Your task to perform on an android device: Search for a new mascara Image 0: 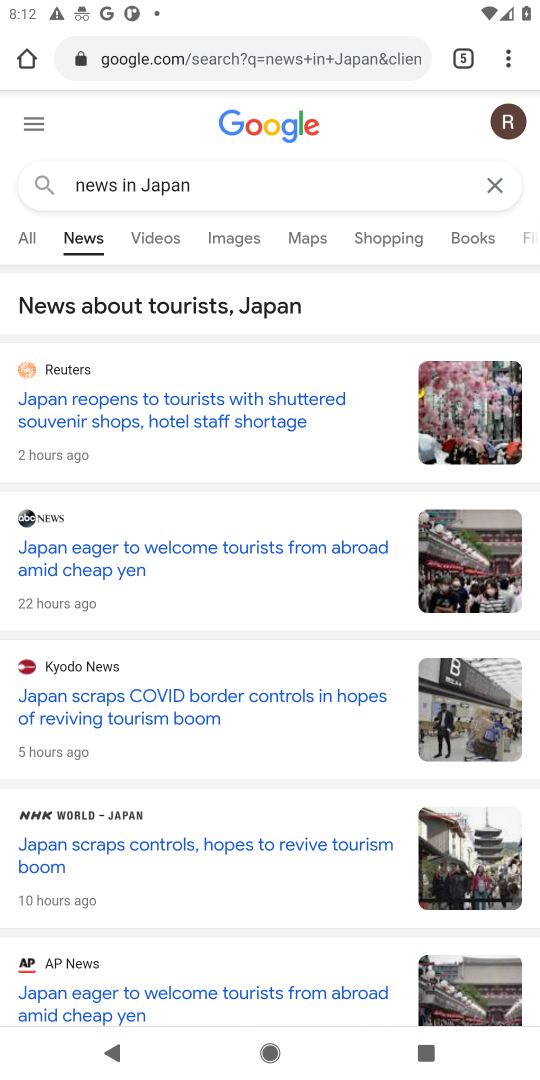
Step 0: press home button
Your task to perform on an android device: Search for a new mascara Image 1: 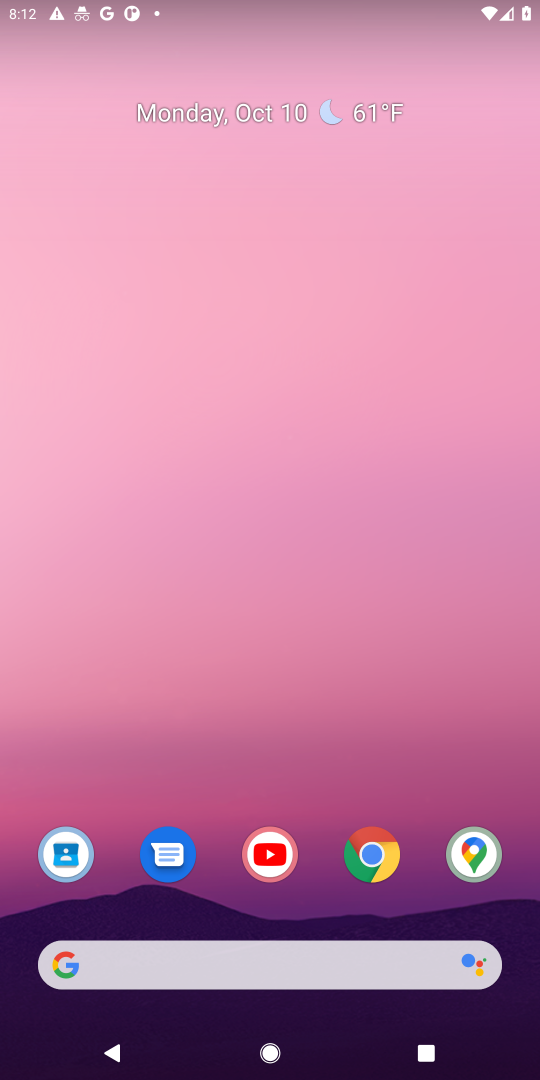
Step 1: click (374, 858)
Your task to perform on an android device: Search for a new mascara Image 2: 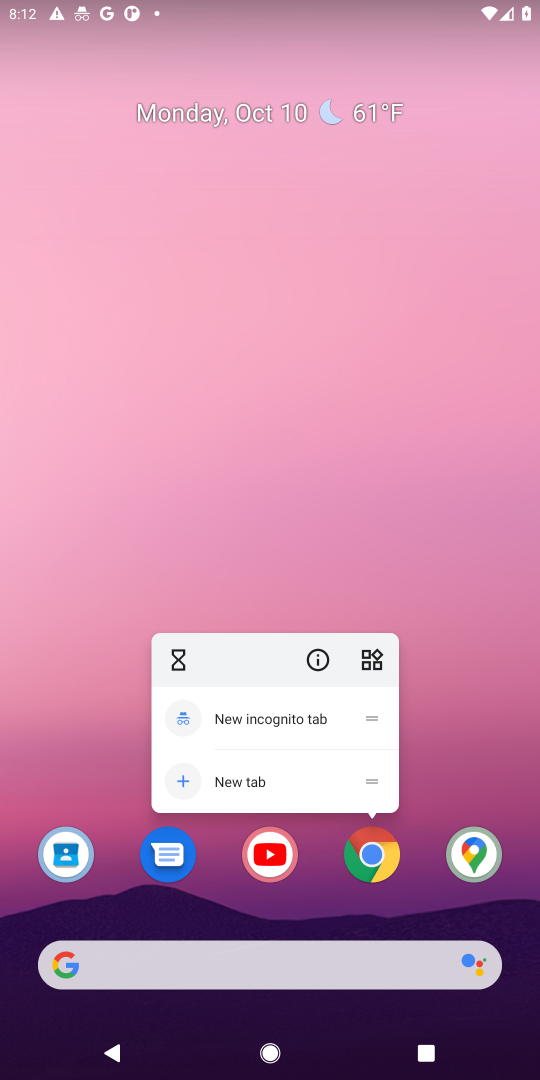
Step 2: click (374, 858)
Your task to perform on an android device: Search for a new mascara Image 3: 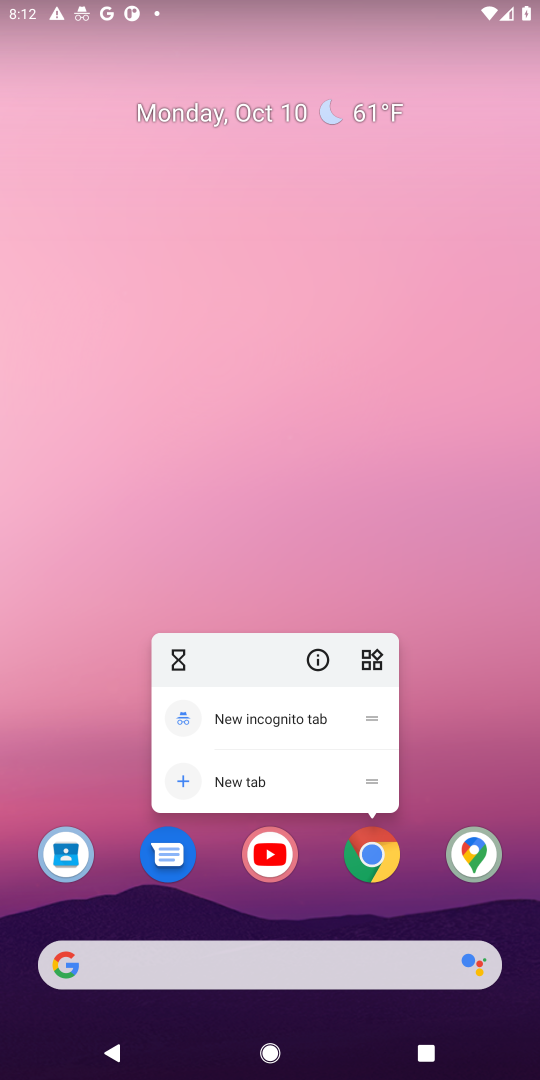
Step 3: click (374, 858)
Your task to perform on an android device: Search for a new mascara Image 4: 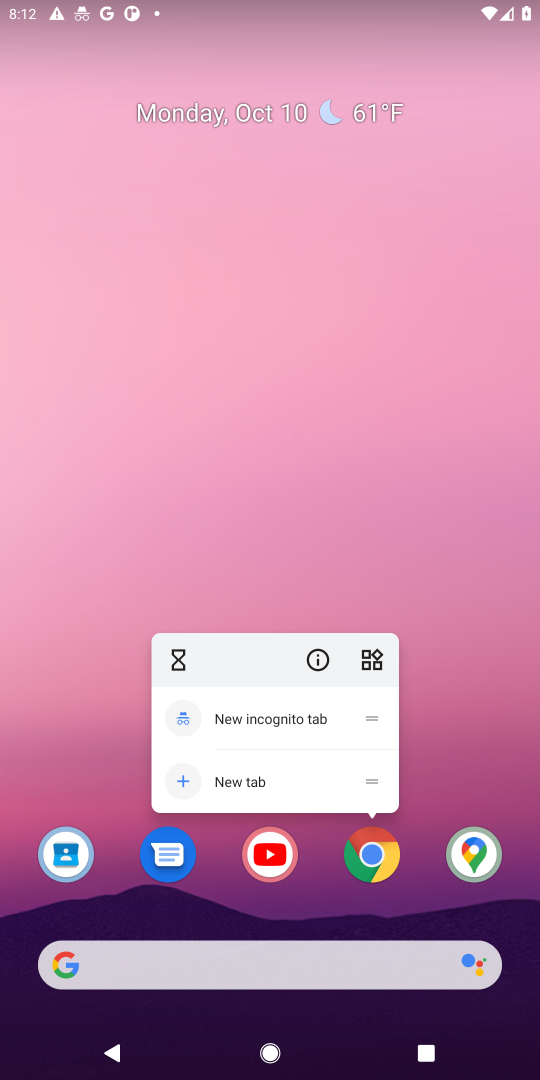
Step 4: click (374, 858)
Your task to perform on an android device: Search for a new mascara Image 5: 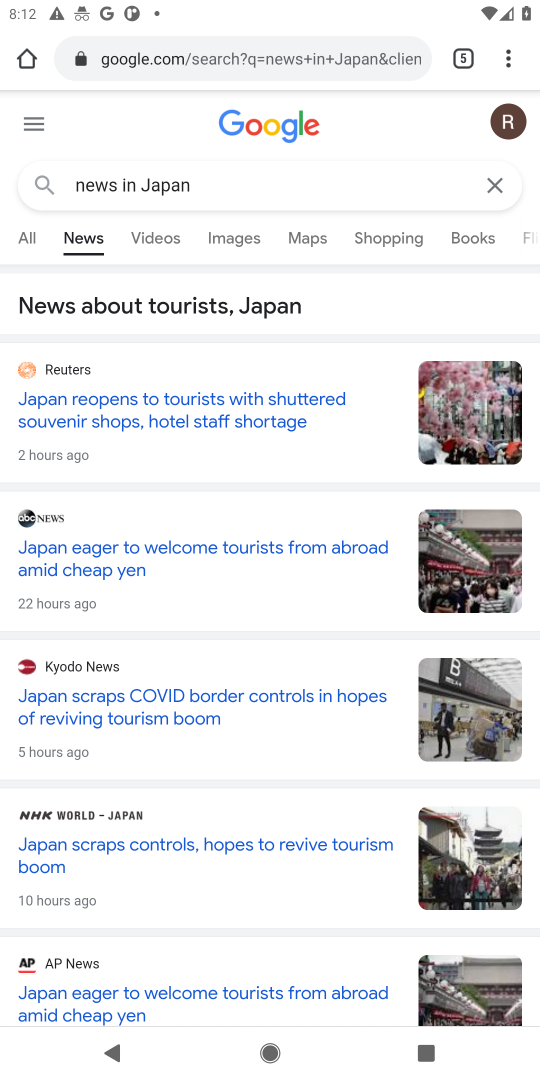
Step 5: click (366, 51)
Your task to perform on an android device: Search for a new mascara Image 6: 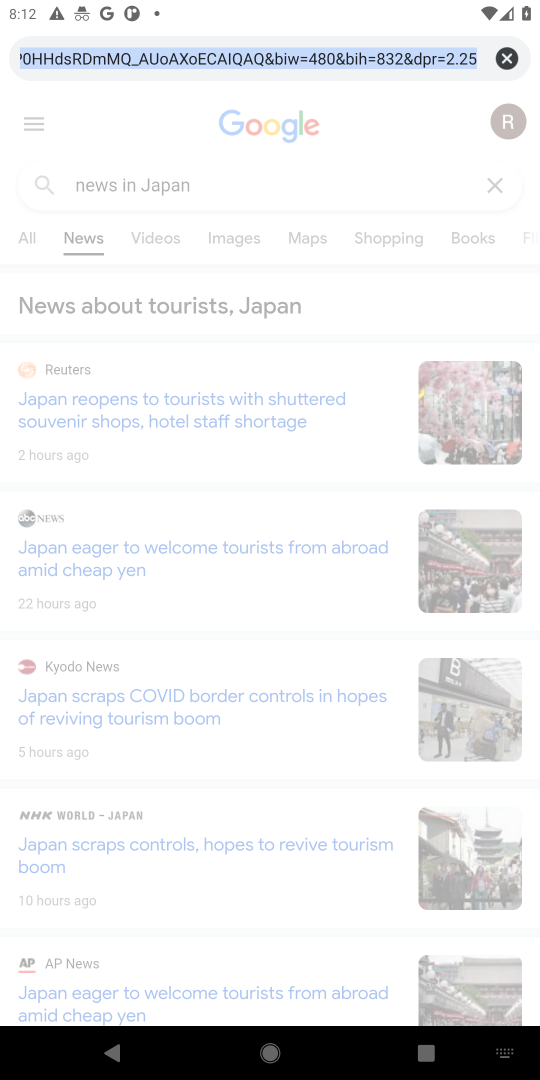
Step 6: click (499, 50)
Your task to perform on an android device: Search for a new mascara Image 7: 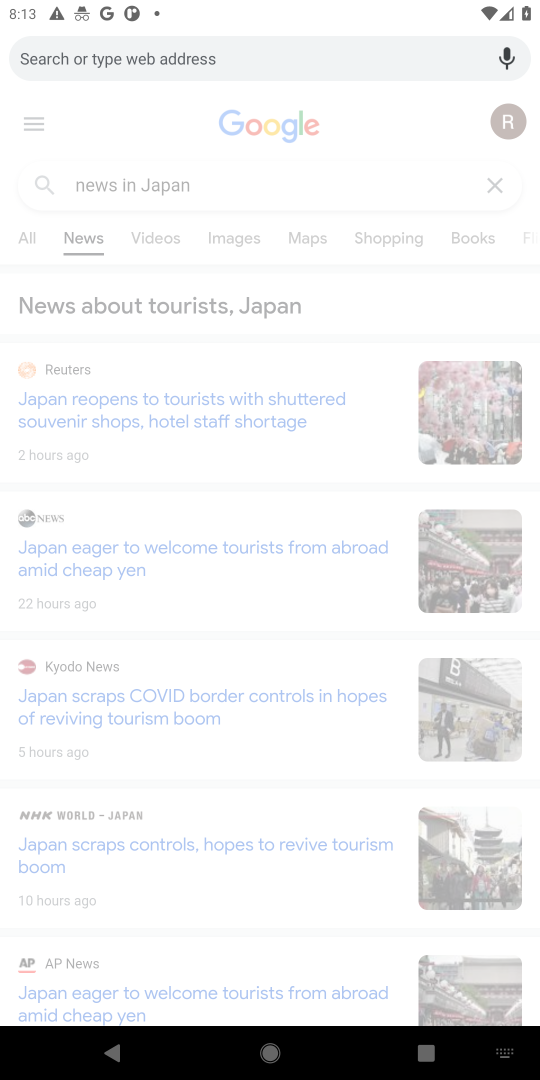
Step 7: type "new mascara"
Your task to perform on an android device: Search for a new mascara Image 8: 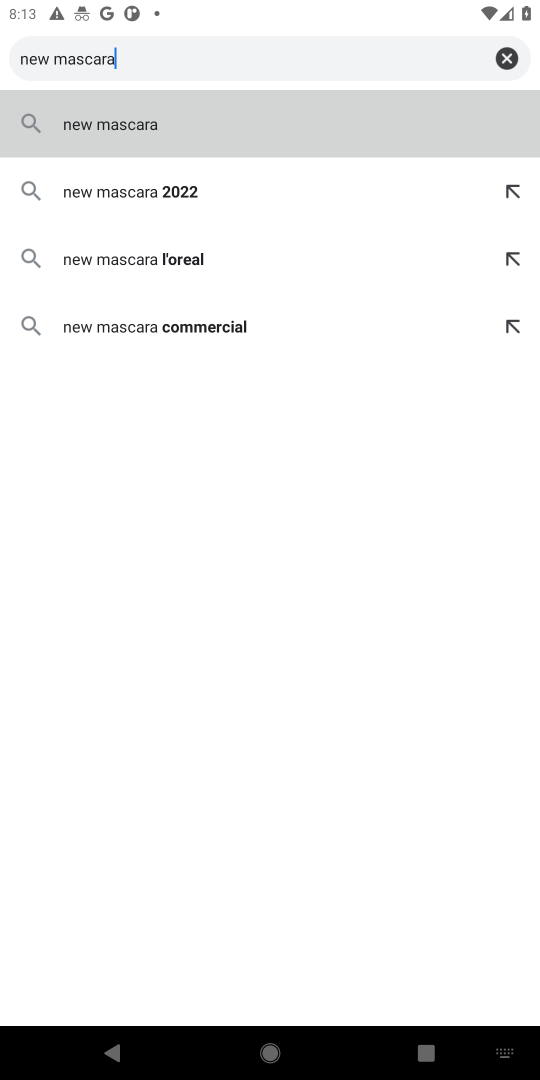
Step 8: click (115, 122)
Your task to perform on an android device: Search for a new mascara Image 9: 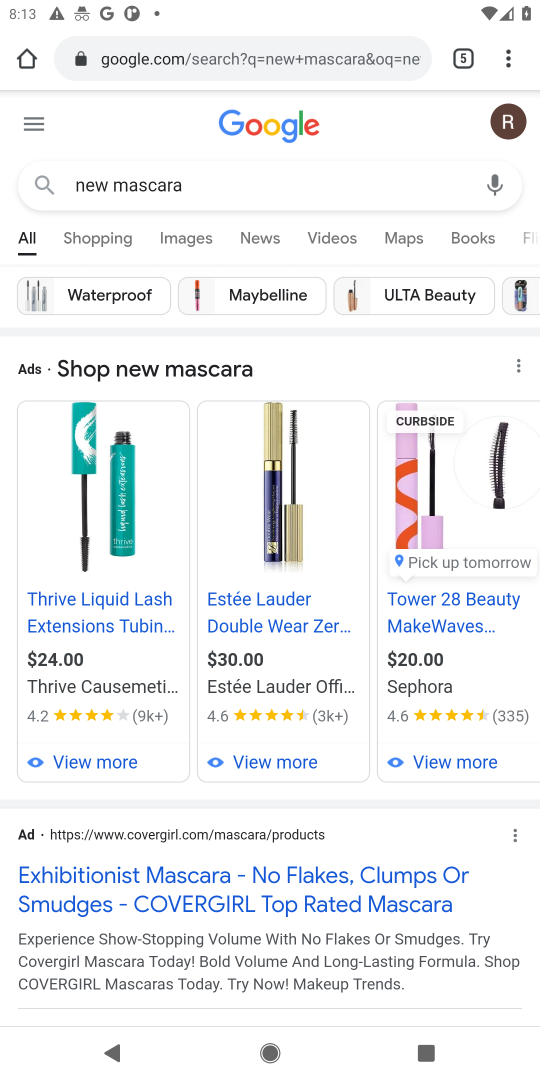
Step 9: drag from (197, 803) to (356, 493)
Your task to perform on an android device: Search for a new mascara Image 10: 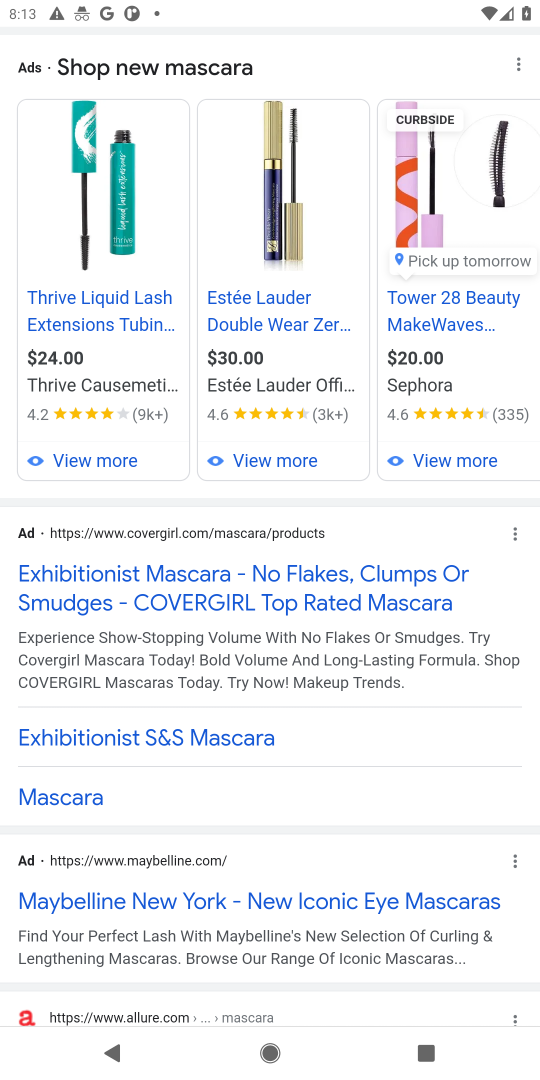
Step 10: click (147, 578)
Your task to perform on an android device: Search for a new mascara Image 11: 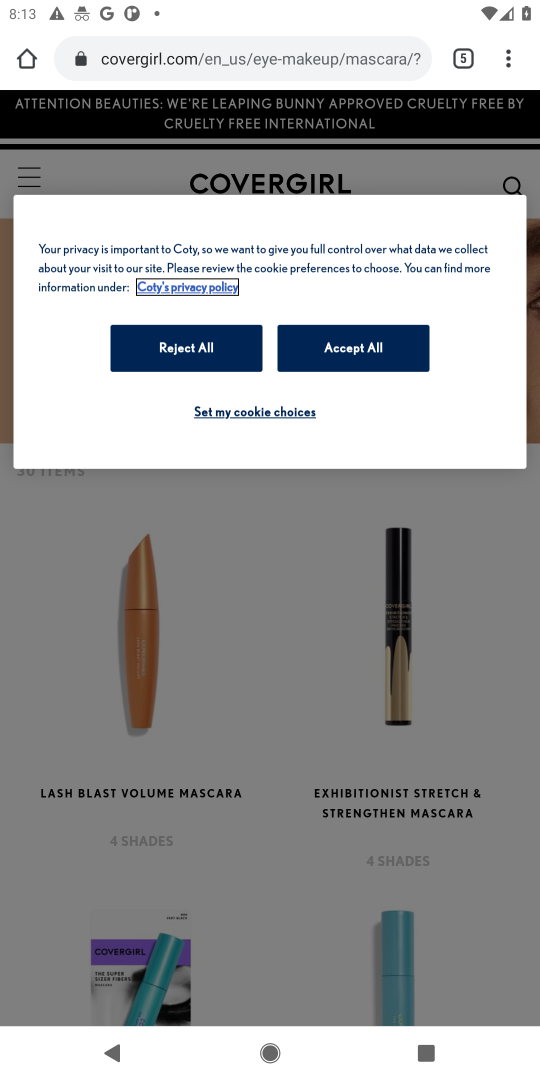
Step 11: drag from (231, 890) to (467, 44)
Your task to perform on an android device: Search for a new mascara Image 12: 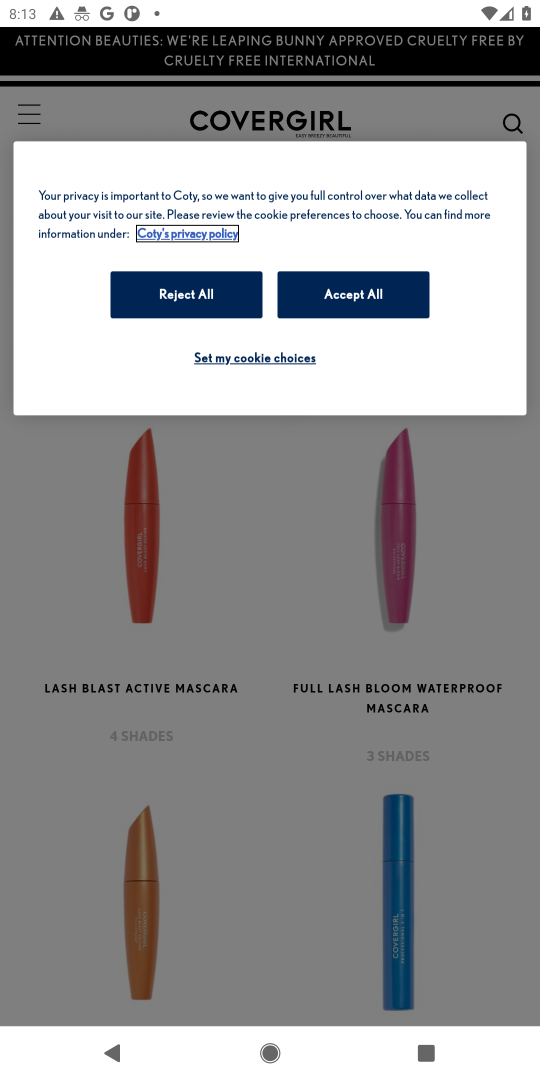
Step 12: click (343, 301)
Your task to perform on an android device: Search for a new mascara Image 13: 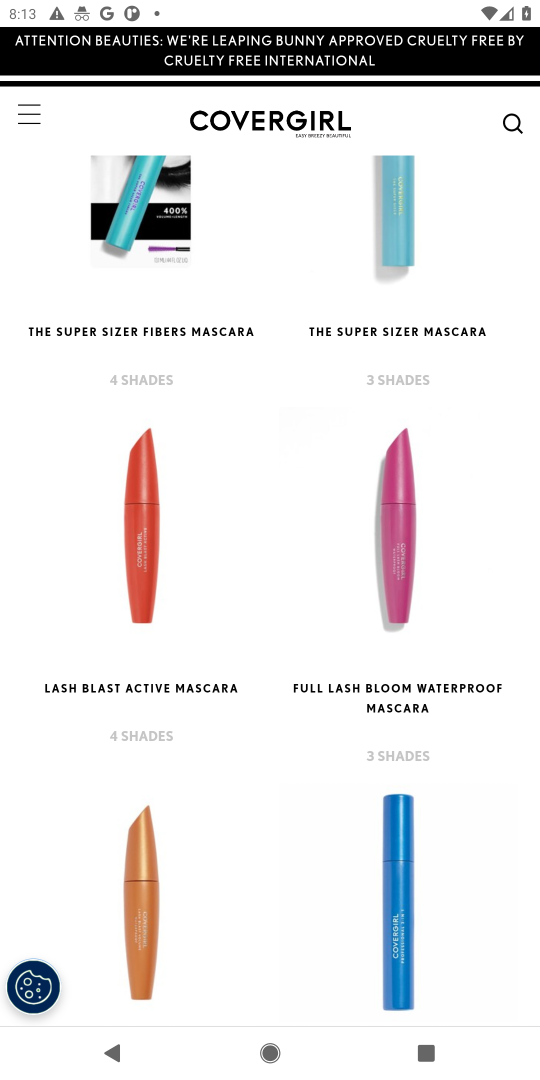
Step 13: task complete